Your task to perform on an android device: Open Maps and search for coffee Image 0: 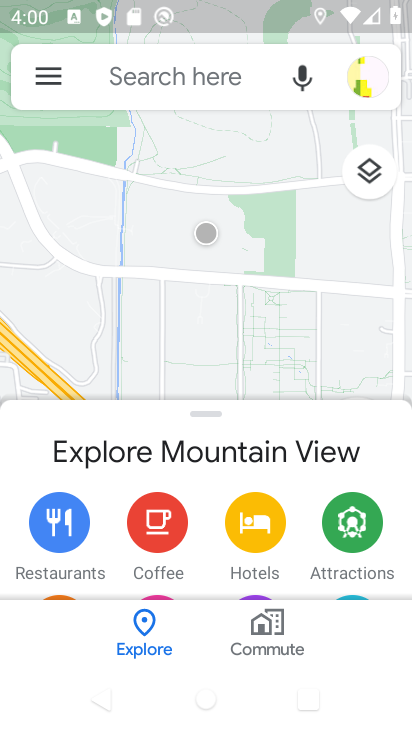
Step 0: press home button
Your task to perform on an android device: Open Maps and search for coffee Image 1: 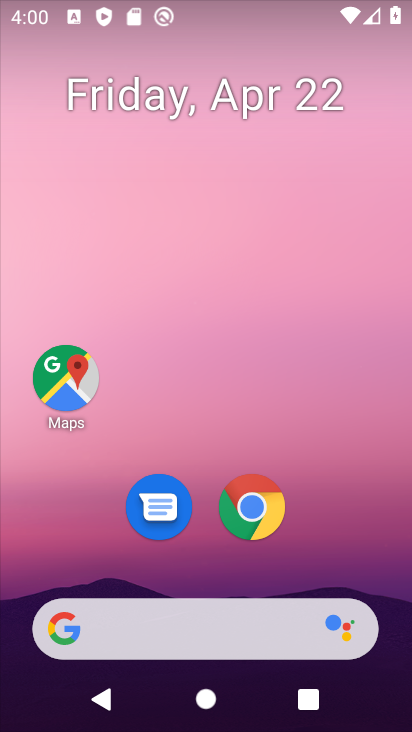
Step 1: click (45, 376)
Your task to perform on an android device: Open Maps and search for coffee Image 2: 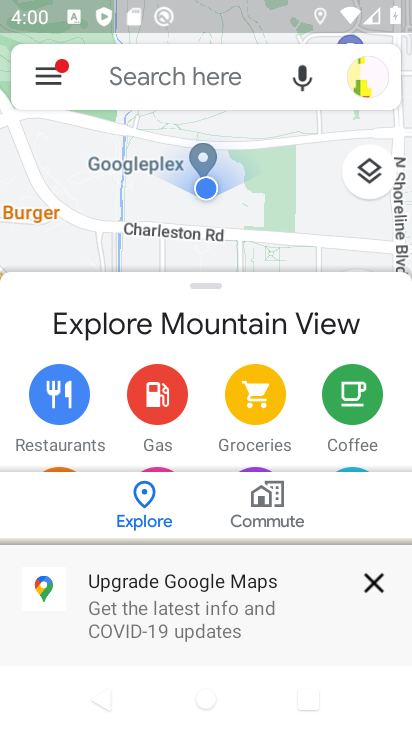
Step 2: click (222, 77)
Your task to perform on an android device: Open Maps and search for coffee Image 3: 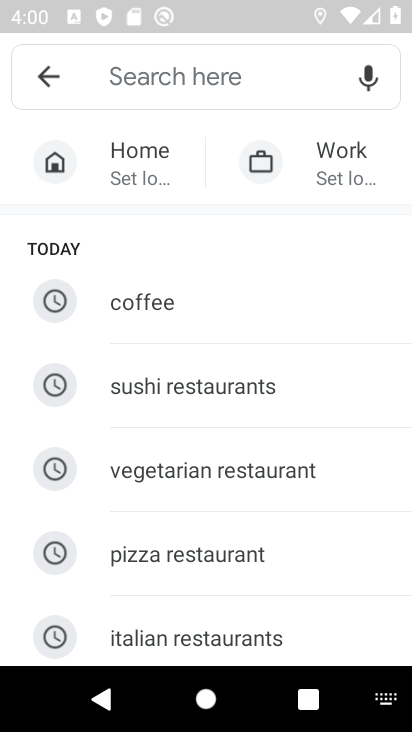
Step 3: click (209, 290)
Your task to perform on an android device: Open Maps and search for coffee Image 4: 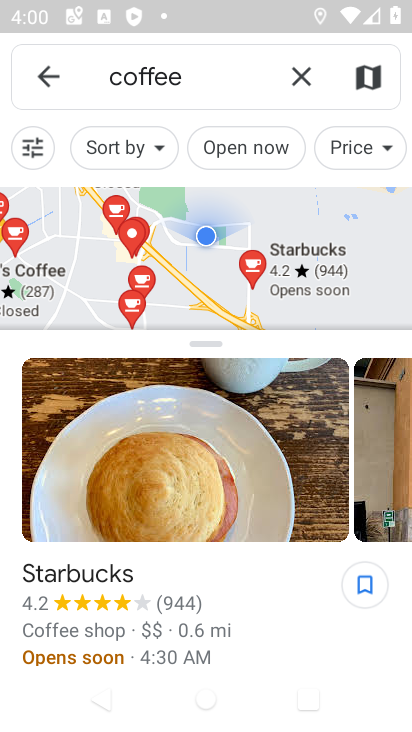
Step 4: task complete